Your task to perform on an android device: open a bookmark in the chrome app Image 0: 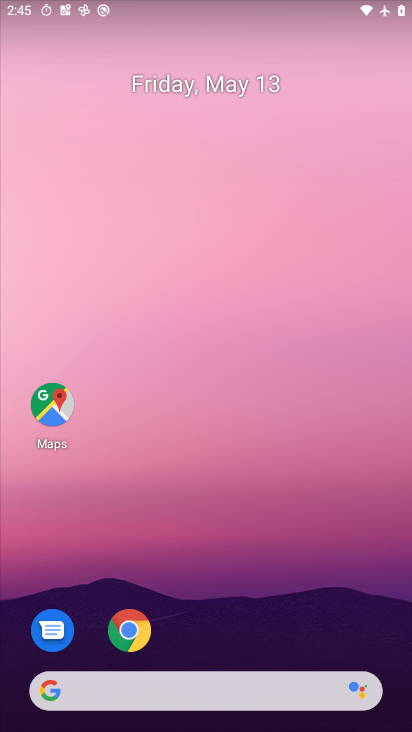
Step 0: drag from (182, 603) to (240, 316)
Your task to perform on an android device: open a bookmark in the chrome app Image 1: 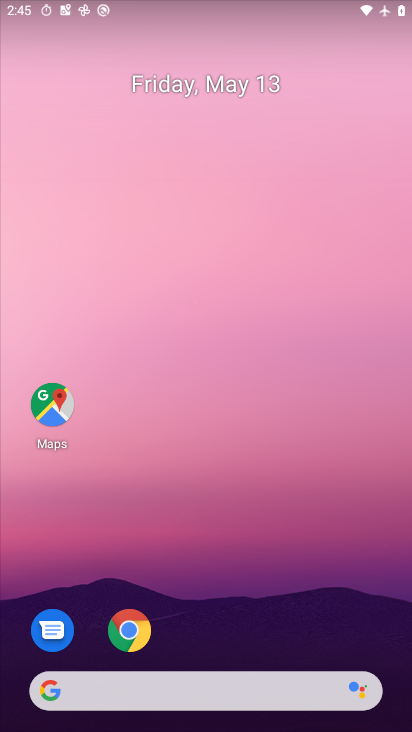
Step 1: drag from (270, 622) to (285, 122)
Your task to perform on an android device: open a bookmark in the chrome app Image 2: 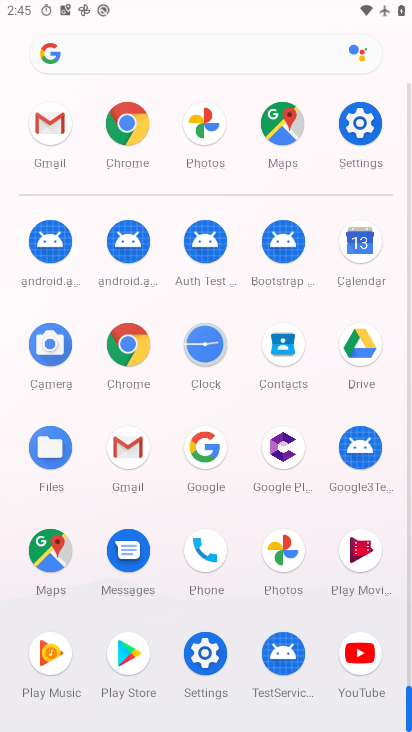
Step 2: click (123, 356)
Your task to perform on an android device: open a bookmark in the chrome app Image 3: 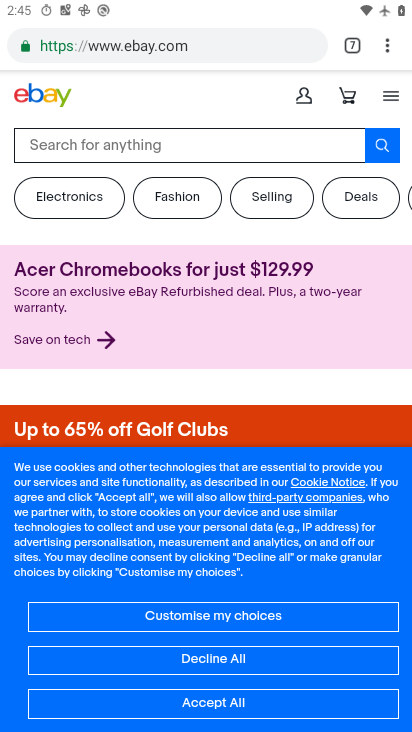
Step 3: click (392, 54)
Your task to perform on an android device: open a bookmark in the chrome app Image 4: 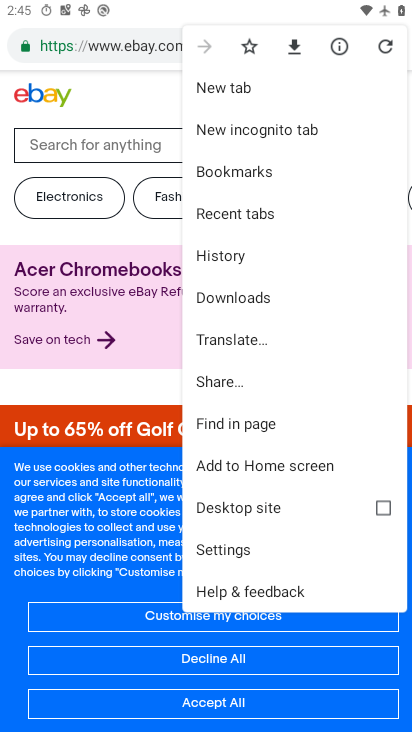
Step 4: click (268, 181)
Your task to perform on an android device: open a bookmark in the chrome app Image 5: 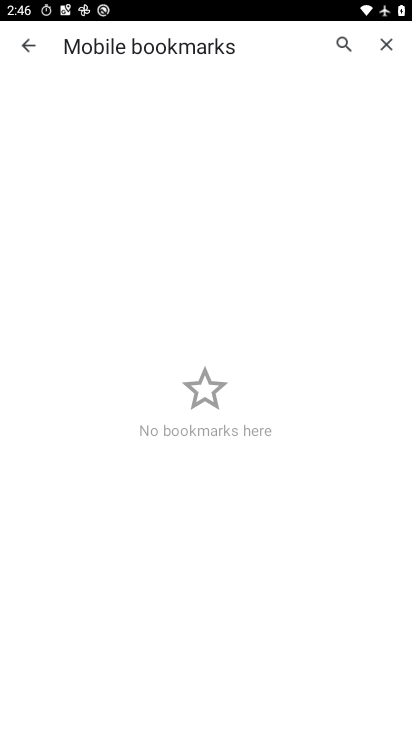
Step 5: task complete